Your task to perform on an android device: Open display settings Image 0: 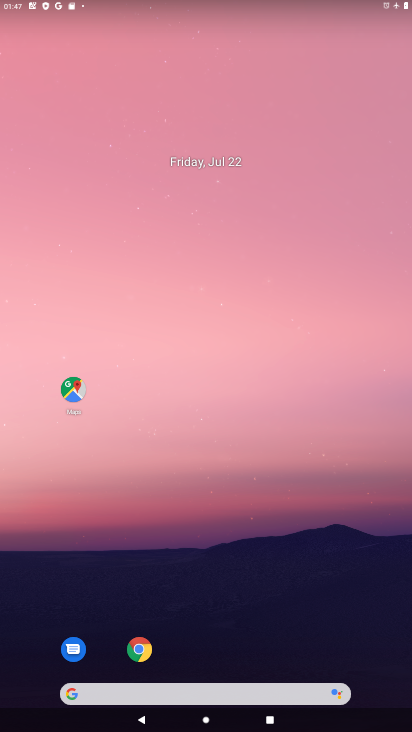
Step 0: drag from (282, 619) to (256, 211)
Your task to perform on an android device: Open display settings Image 1: 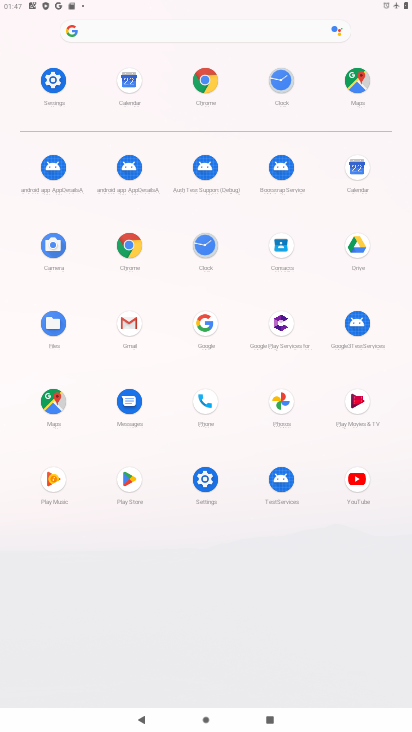
Step 1: click (59, 74)
Your task to perform on an android device: Open display settings Image 2: 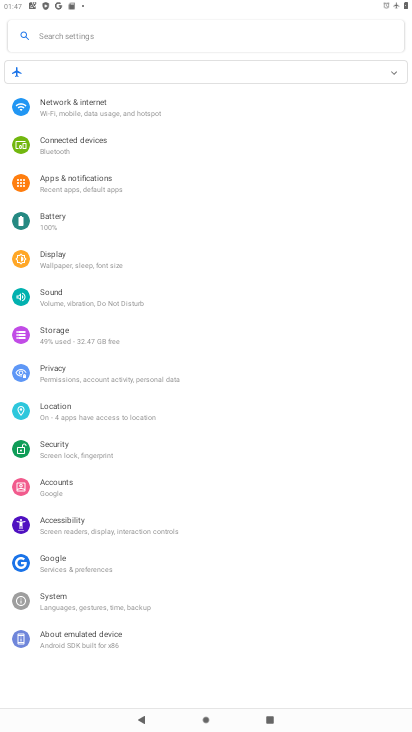
Step 2: click (74, 259)
Your task to perform on an android device: Open display settings Image 3: 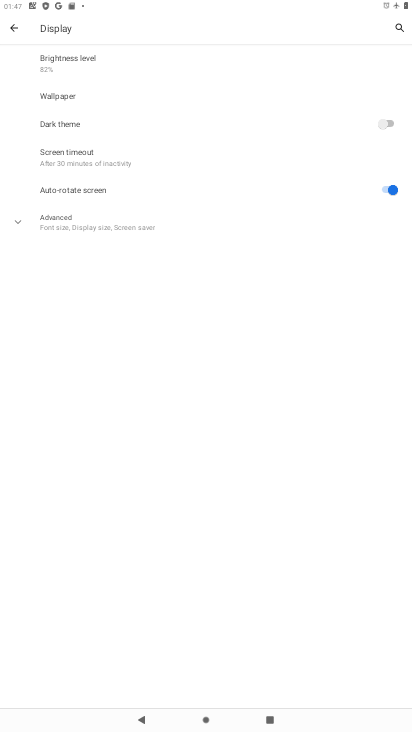
Step 3: task complete